Your task to perform on an android device: turn on improve location accuracy Image 0: 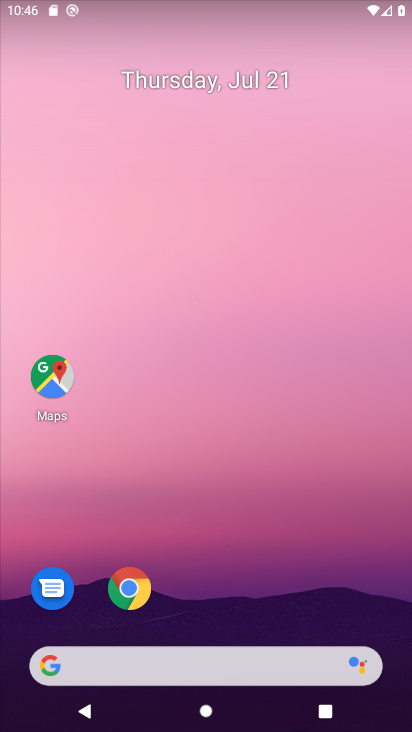
Step 0: press home button
Your task to perform on an android device: turn on improve location accuracy Image 1: 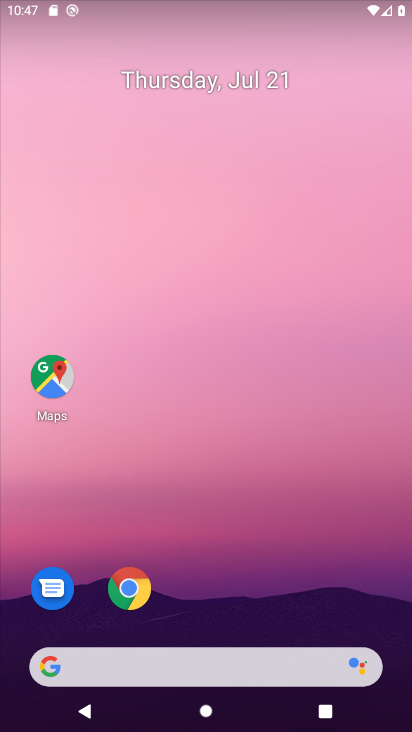
Step 1: drag from (218, 512) to (249, 34)
Your task to perform on an android device: turn on improve location accuracy Image 2: 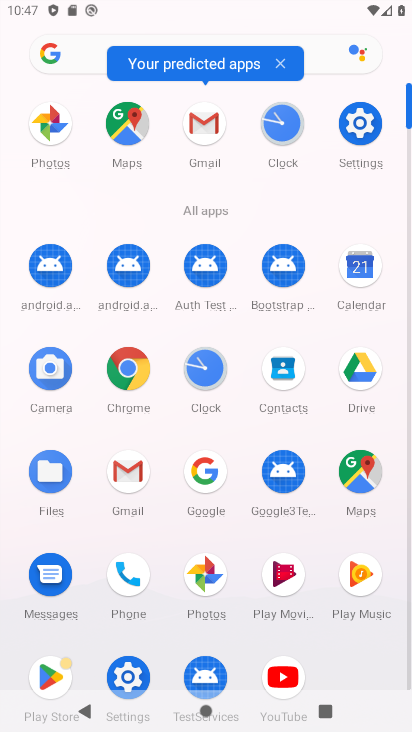
Step 2: click (356, 117)
Your task to perform on an android device: turn on improve location accuracy Image 3: 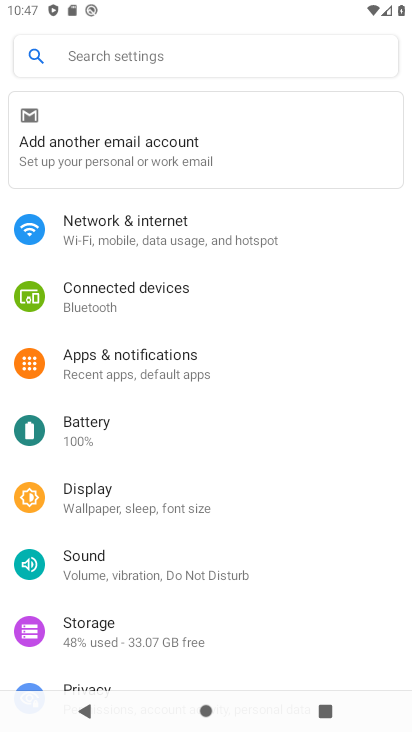
Step 3: drag from (166, 650) to (170, 123)
Your task to perform on an android device: turn on improve location accuracy Image 4: 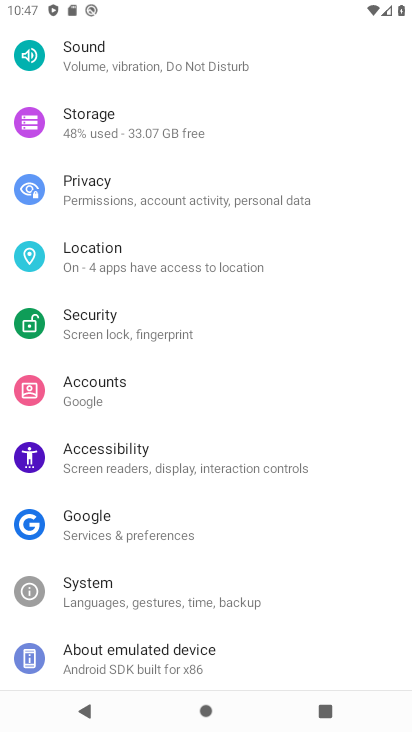
Step 4: click (128, 247)
Your task to perform on an android device: turn on improve location accuracy Image 5: 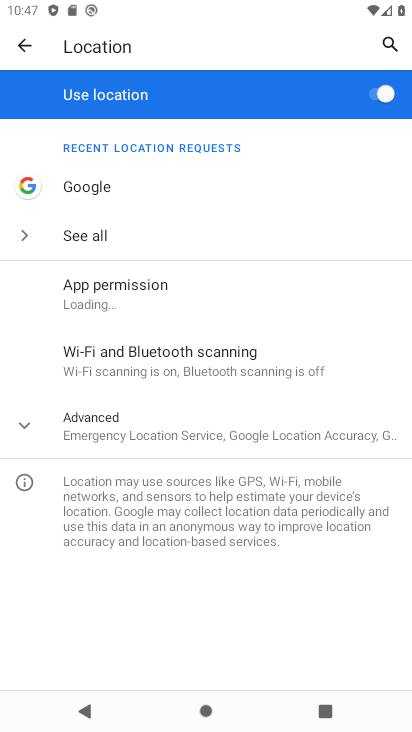
Step 5: click (29, 421)
Your task to perform on an android device: turn on improve location accuracy Image 6: 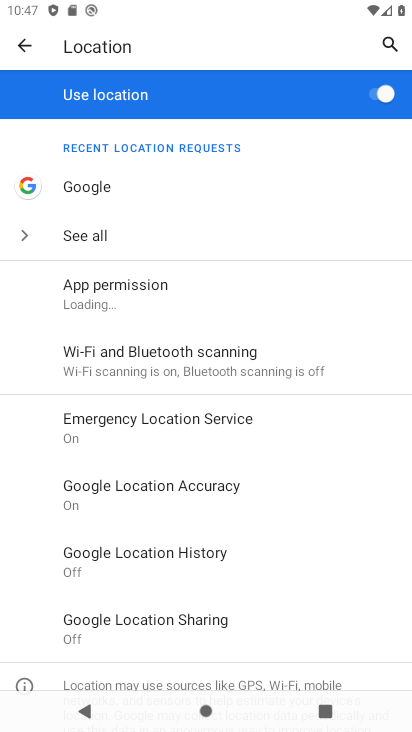
Step 6: click (109, 498)
Your task to perform on an android device: turn on improve location accuracy Image 7: 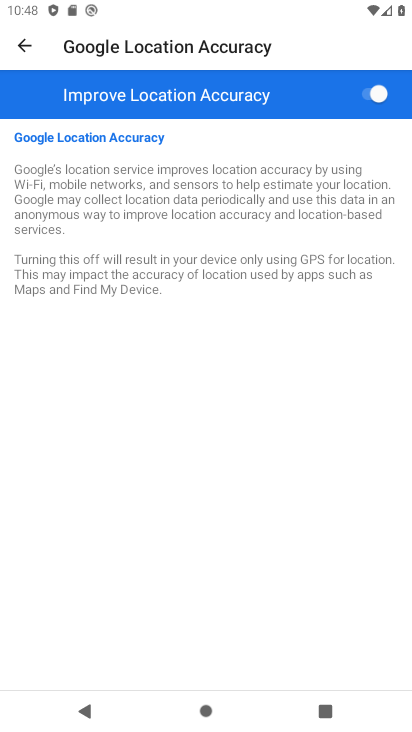
Step 7: task complete